Your task to perform on an android device: Go to ESPN.com Image 0: 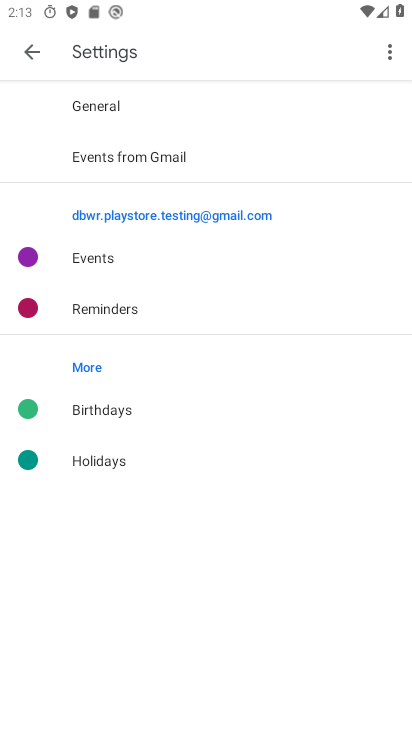
Step 0: press home button
Your task to perform on an android device: Go to ESPN.com Image 1: 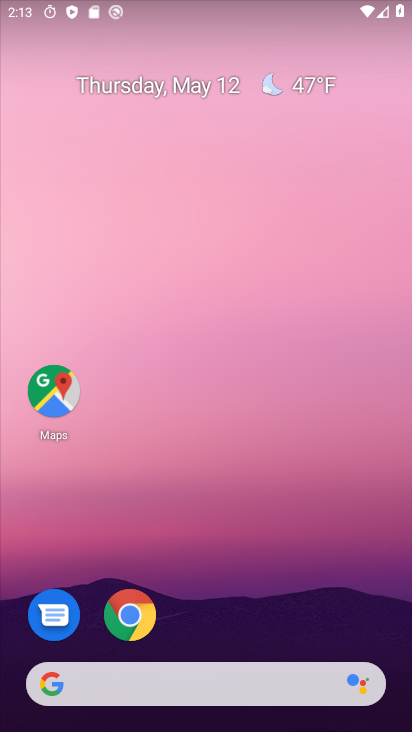
Step 1: drag from (241, 621) to (206, 108)
Your task to perform on an android device: Go to ESPN.com Image 2: 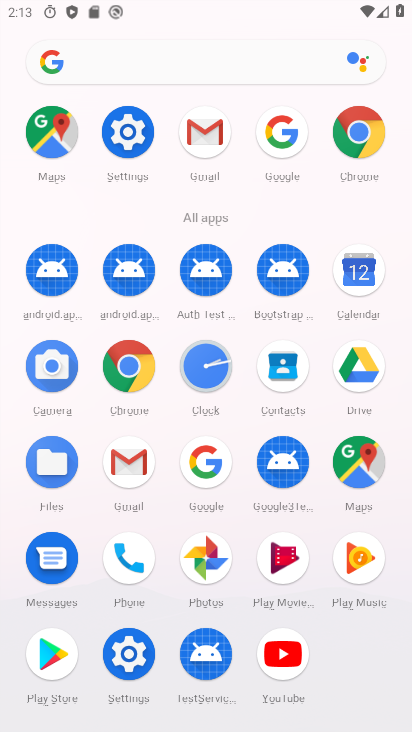
Step 2: click (204, 475)
Your task to perform on an android device: Go to ESPN.com Image 3: 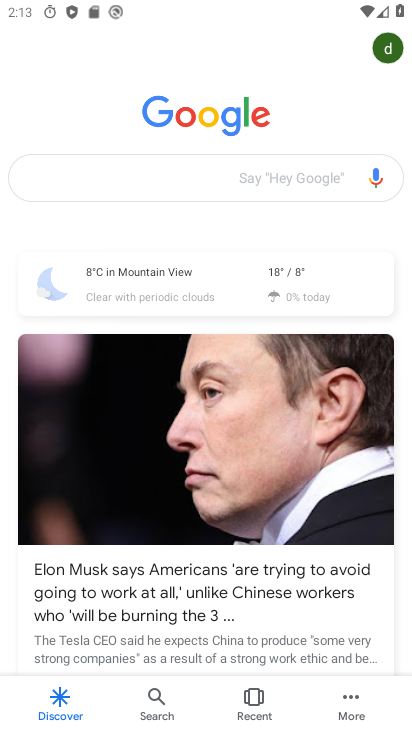
Step 3: click (170, 200)
Your task to perform on an android device: Go to ESPN.com Image 4: 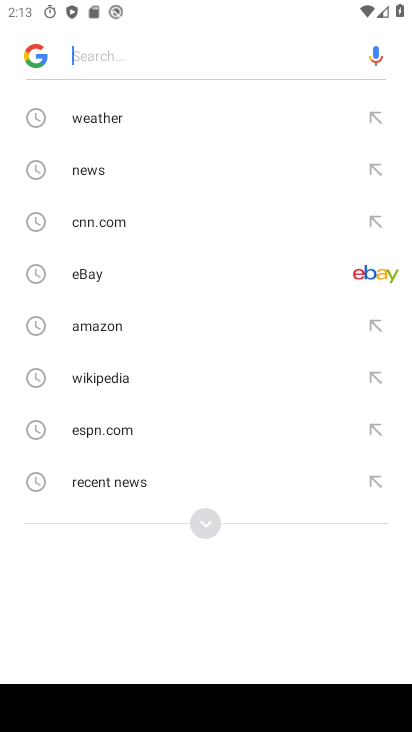
Step 4: click (136, 423)
Your task to perform on an android device: Go to ESPN.com Image 5: 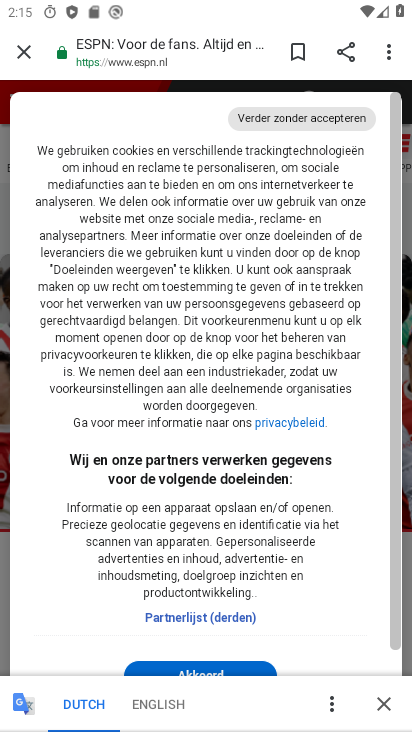
Step 5: task complete